Your task to perform on an android device: check google app version Image 0: 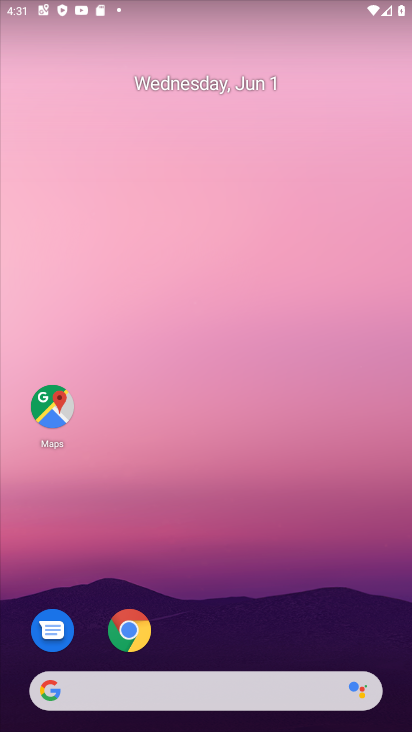
Step 0: drag from (225, 652) to (253, 58)
Your task to perform on an android device: check google app version Image 1: 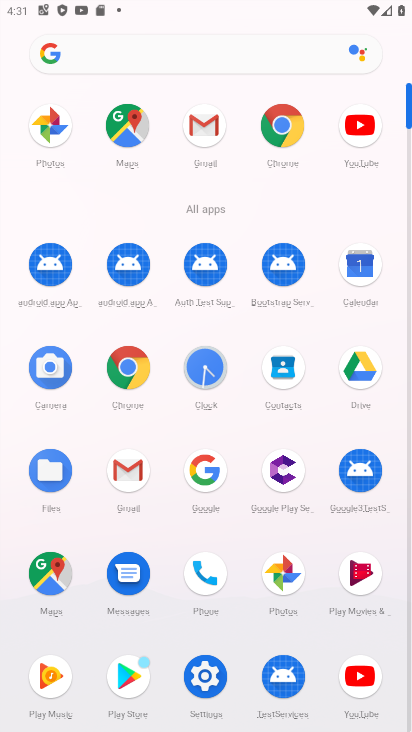
Step 1: click (193, 476)
Your task to perform on an android device: check google app version Image 2: 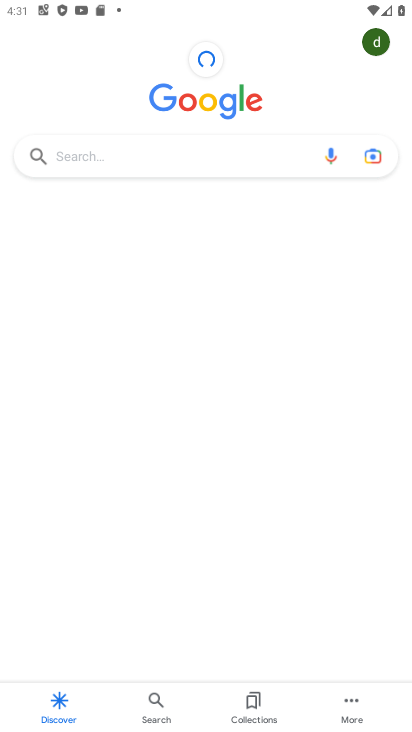
Step 2: click (362, 705)
Your task to perform on an android device: check google app version Image 3: 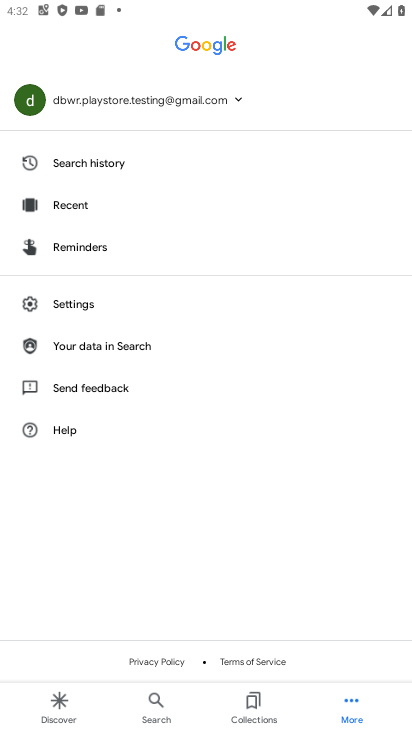
Step 3: click (100, 297)
Your task to perform on an android device: check google app version Image 4: 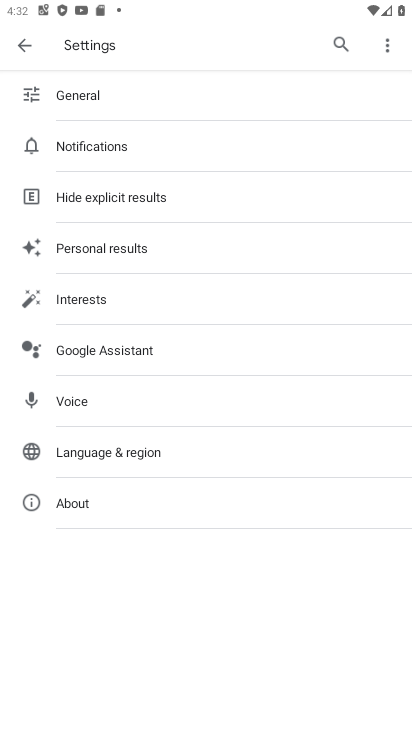
Step 4: click (77, 497)
Your task to perform on an android device: check google app version Image 5: 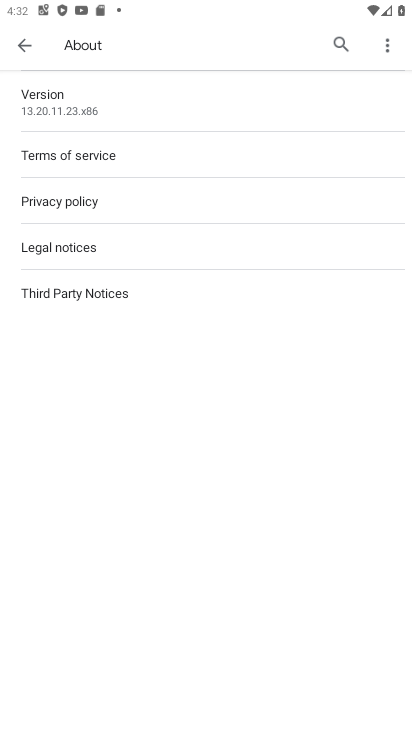
Step 5: click (57, 106)
Your task to perform on an android device: check google app version Image 6: 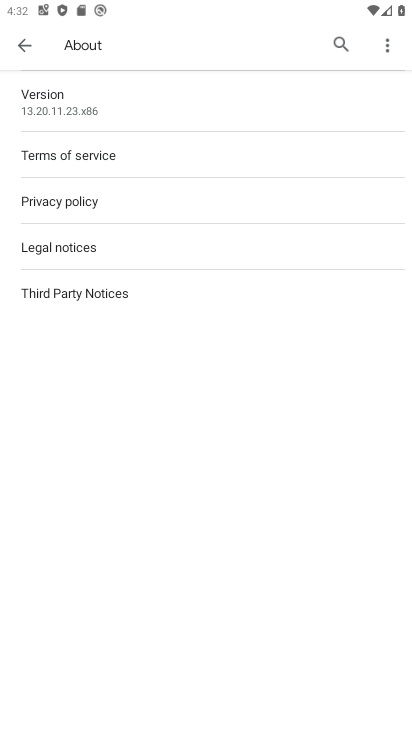
Step 6: task complete